Your task to perform on an android device: empty trash in google photos Image 0: 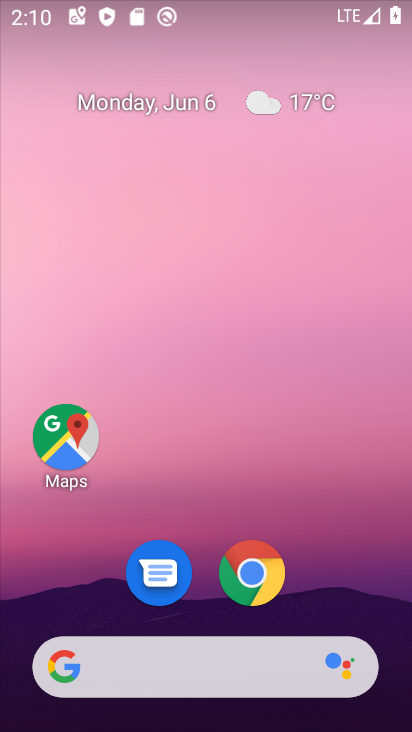
Step 0: drag from (338, 608) to (368, 212)
Your task to perform on an android device: empty trash in google photos Image 1: 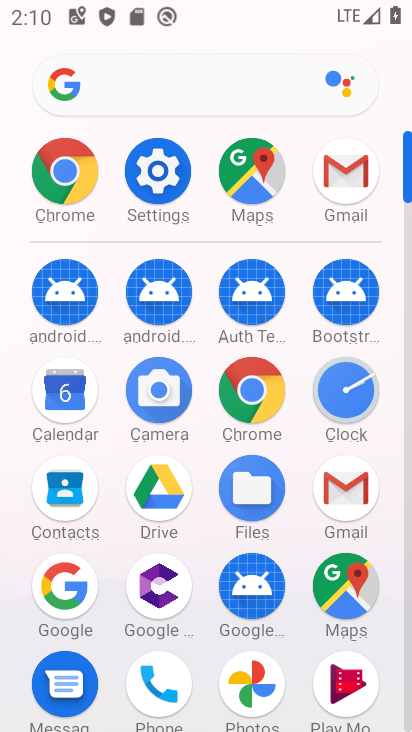
Step 1: click (261, 680)
Your task to perform on an android device: empty trash in google photos Image 2: 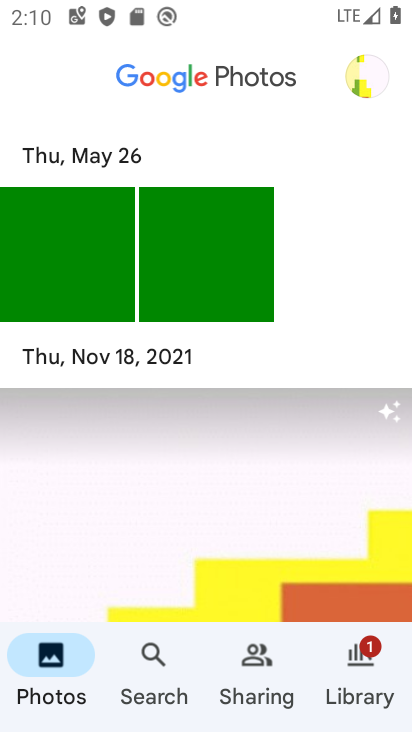
Step 2: click (345, 662)
Your task to perform on an android device: empty trash in google photos Image 3: 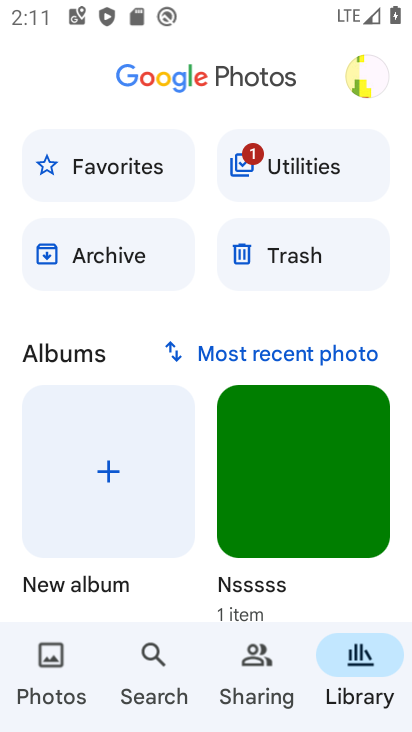
Step 3: click (326, 246)
Your task to perform on an android device: empty trash in google photos Image 4: 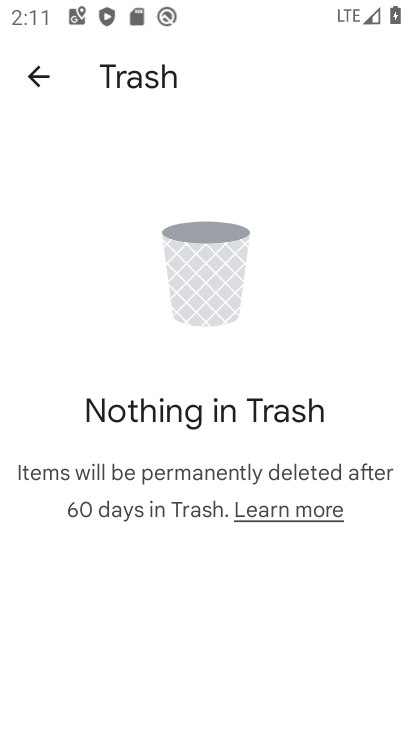
Step 4: task complete